Your task to perform on an android device: check the backup settings in the google photos Image 0: 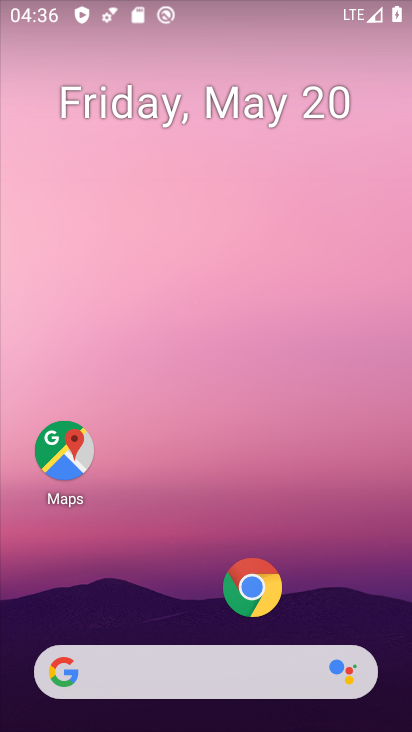
Step 0: drag from (139, 639) to (141, 3)
Your task to perform on an android device: check the backup settings in the google photos Image 1: 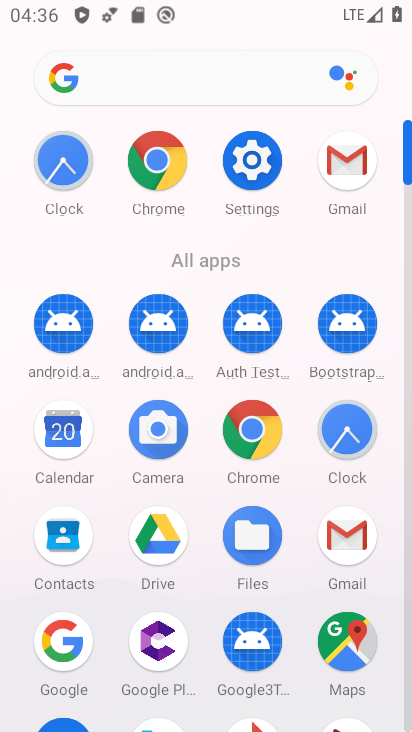
Step 1: drag from (97, 692) to (103, 280)
Your task to perform on an android device: check the backup settings in the google photos Image 2: 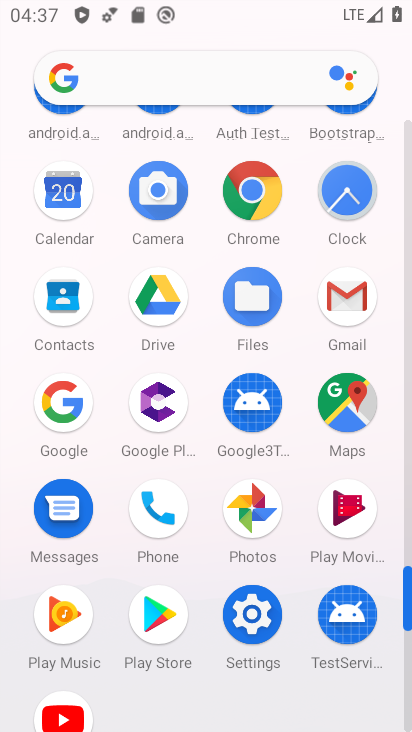
Step 2: click (268, 507)
Your task to perform on an android device: check the backup settings in the google photos Image 3: 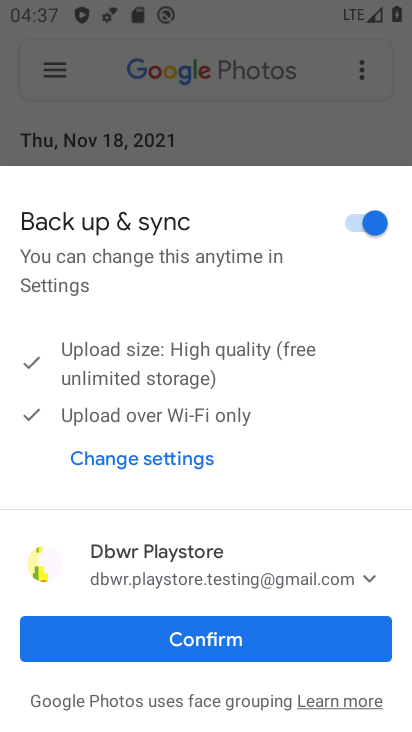
Step 3: click (239, 635)
Your task to perform on an android device: check the backup settings in the google photos Image 4: 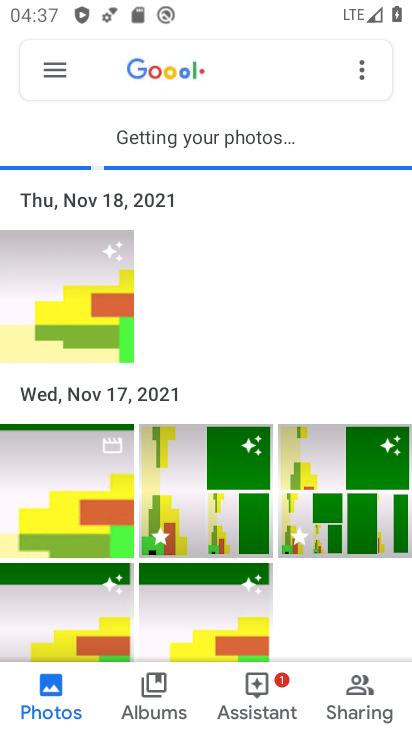
Step 4: click (54, 60)
Your task to perform on an android device: check the backup settings in the google photos Image 5: 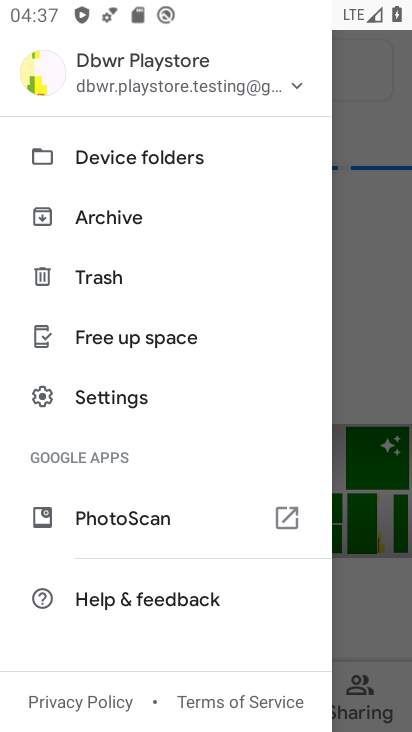
Step 5: click (111, 401)
Your task to perform on an android device: check the backup settings in the google photos Image 6: 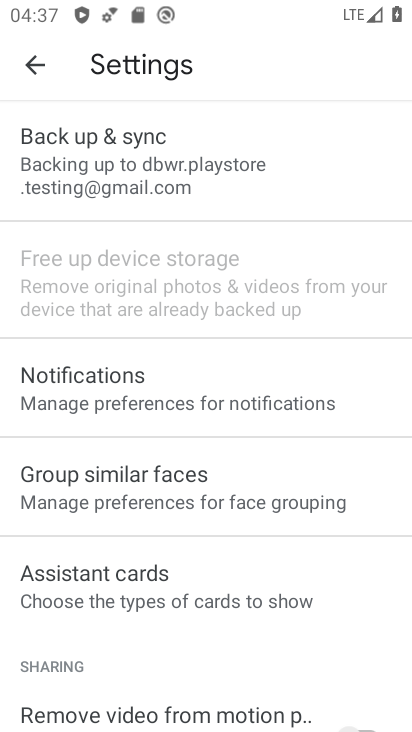
Step 6: click (162, 147)
Your task to perform on an android device: check the backup settings in the google photos Image 7: 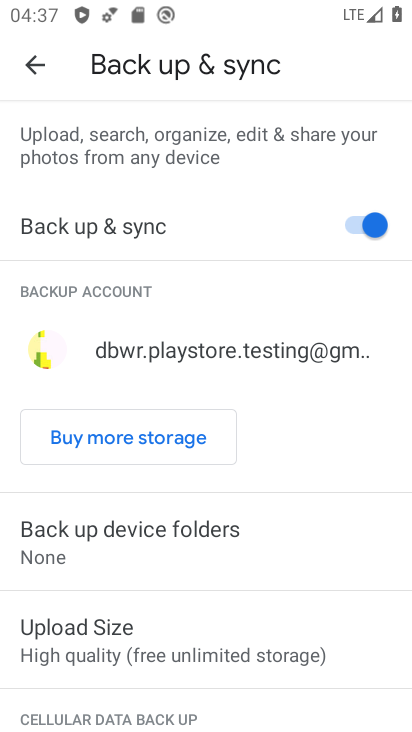
Step 7: task complete